Your task to perform on an android device: turn on improve location accuracy Image 0: 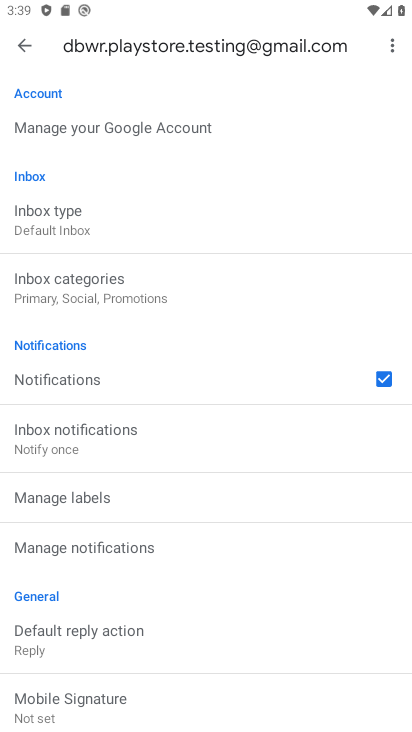
Step 0: press home button
Your task to perform on an android device: turn on improve location accuracy Image 1: 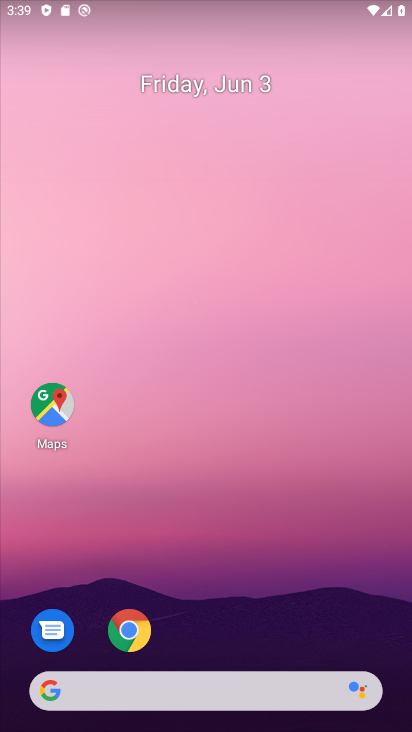
Step 1: drag from (190, 631) to (201, 75)
Your task to perform on an android device: turn on improve location accuracy Image 2: 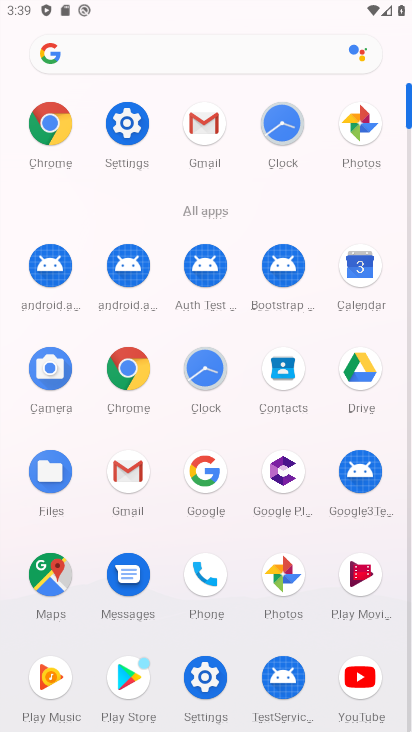
Step 2: click (212, 673)
Your task to perform on an android device: turn on improve location accuracy Image 3: 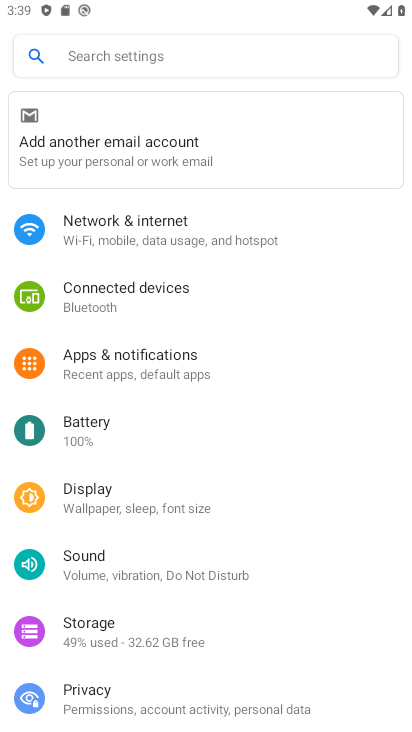
Step 3: drag from (269, 680) to (306, 361)
Your task to perform on an android device: turn on improve location accuracy Image 4: 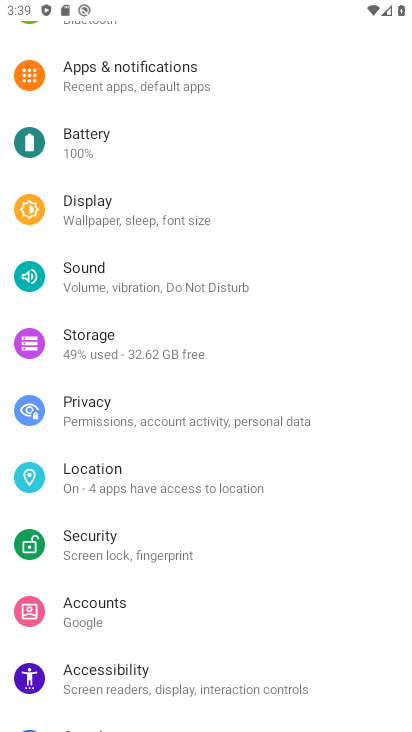
Step 4: click (139, 485)
Your task to perform on an android device: turn on improve location accuracy Image 5: 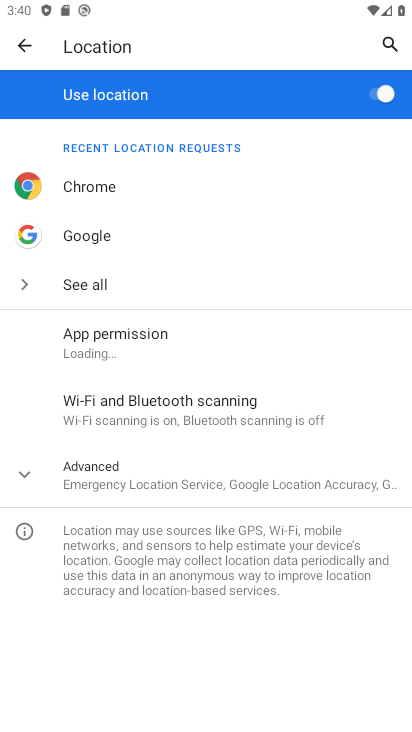
Step 5: click (143, 483)
Your task to perform on an android device: turn on improve location accuracy Image 6: 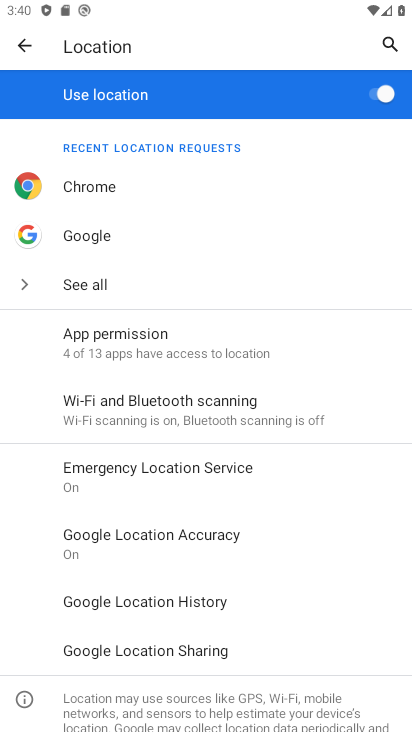
Step 6: click (161, 535)
Your task to perform on an android device: turn on improve location accuracy Image 7: 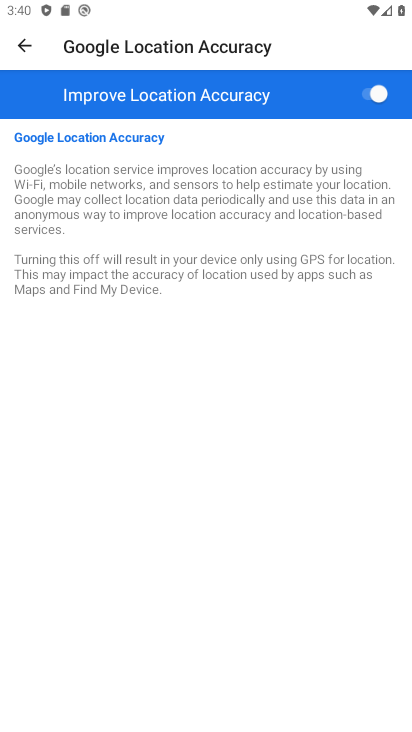
Step 7: task complete